Your task to perform on an android device: Clear all items from cart on ebay.com. Add bose soundlink mini to the cart on ebay.com Image 0: 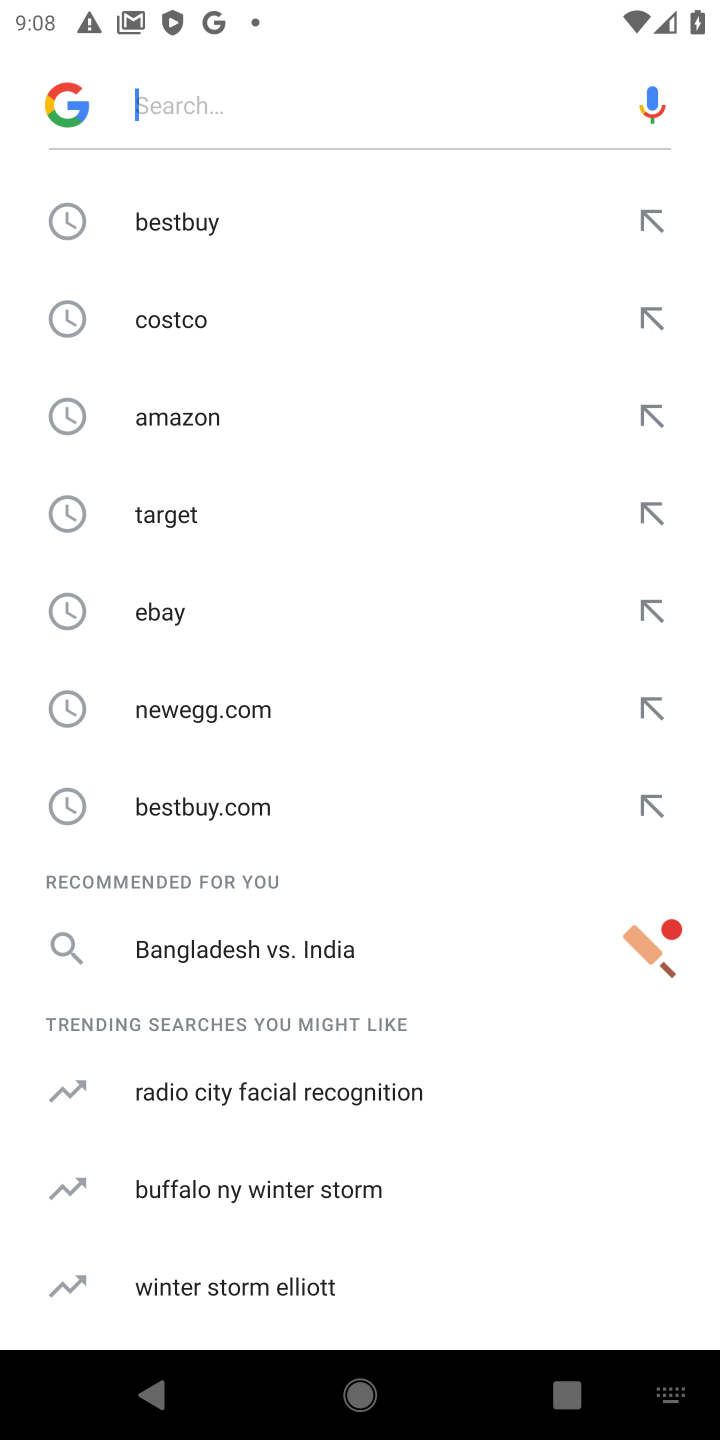
Step 0: click (180, 106)
Your task to perform on an android device: Clear all items from cart on ebay.com. Add bose soundlink mini to the cart on ebay.com Image 1: 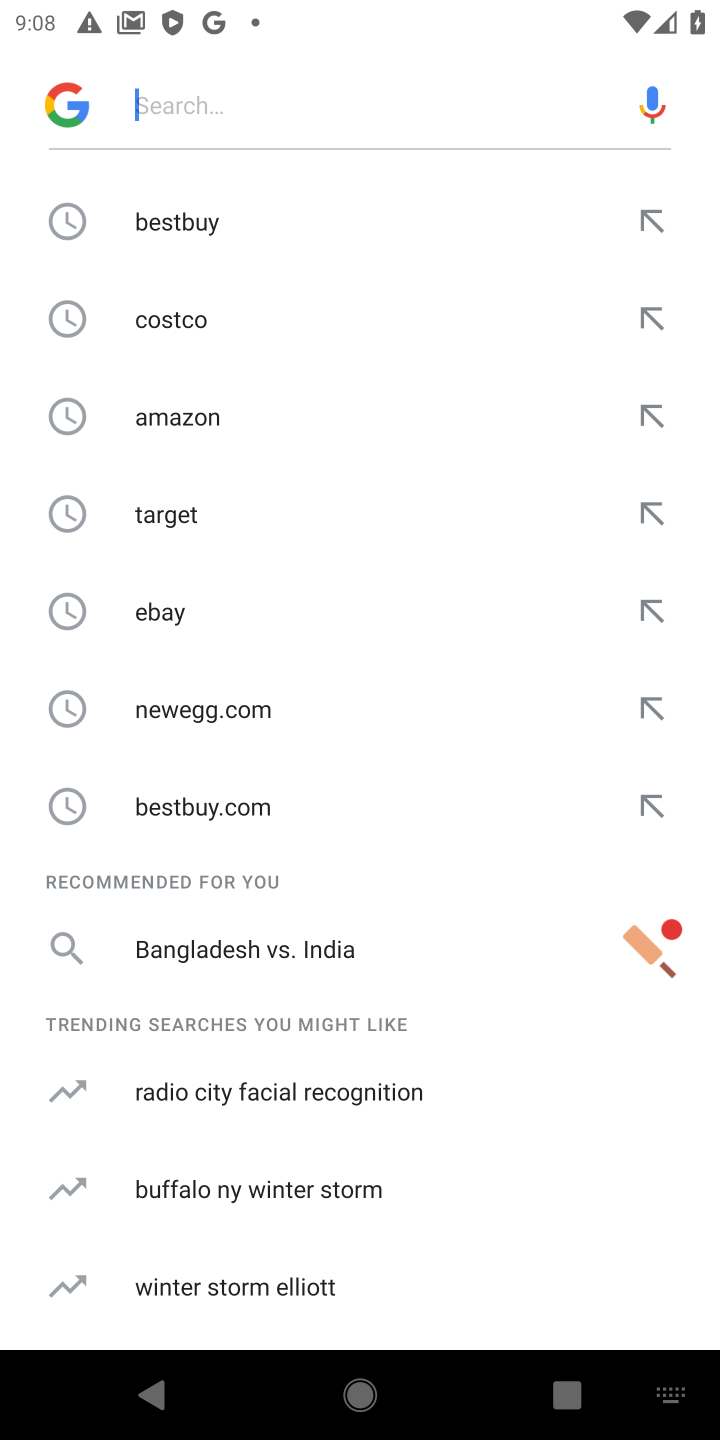
Step 1: type "ebay.com"
Your task to perform on an android device: Clear all items from cart on ebay.com. Add bose soundlink mini to the cart on ebay.com Image 2: 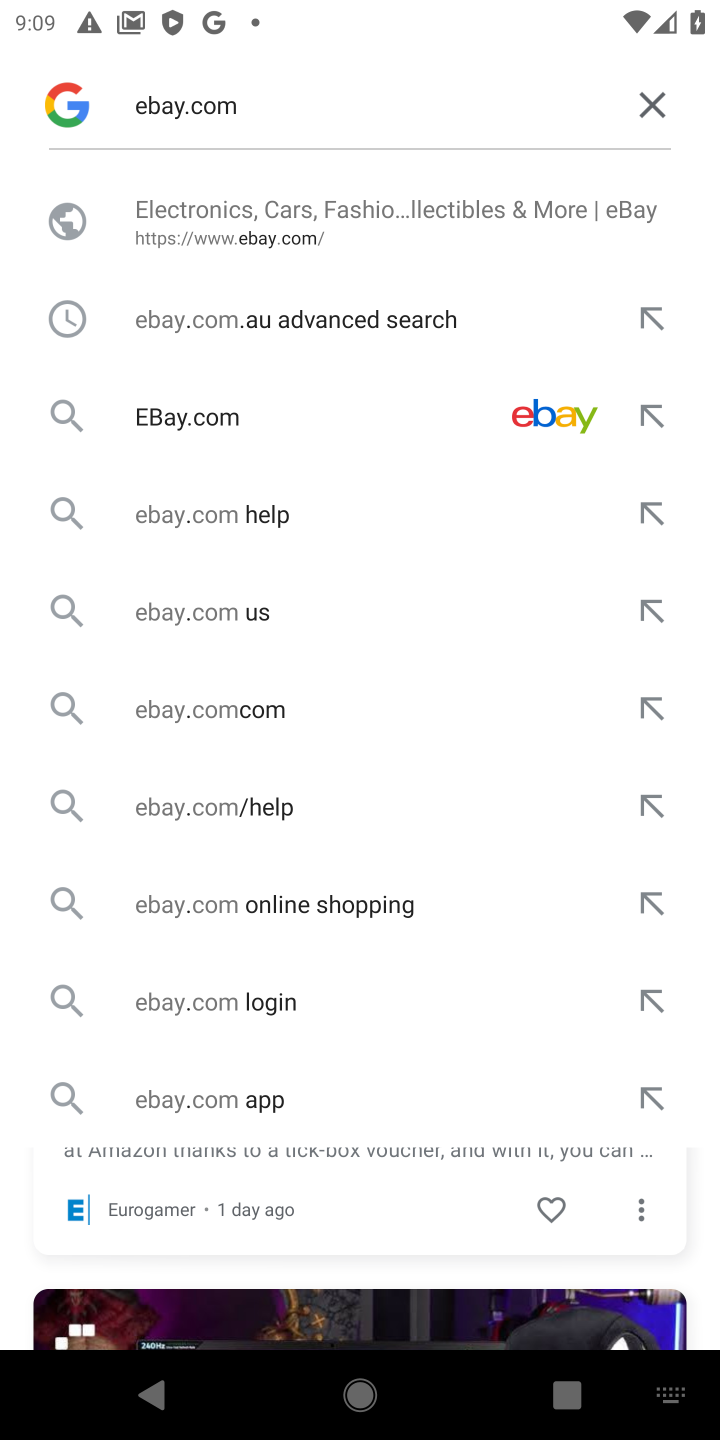
Step 2: click (220, 213)
Your task to perform on an android device: Clear all items from cart on ebay.com. Add bose soundlink mini to the cart on ebay.com Image 3: 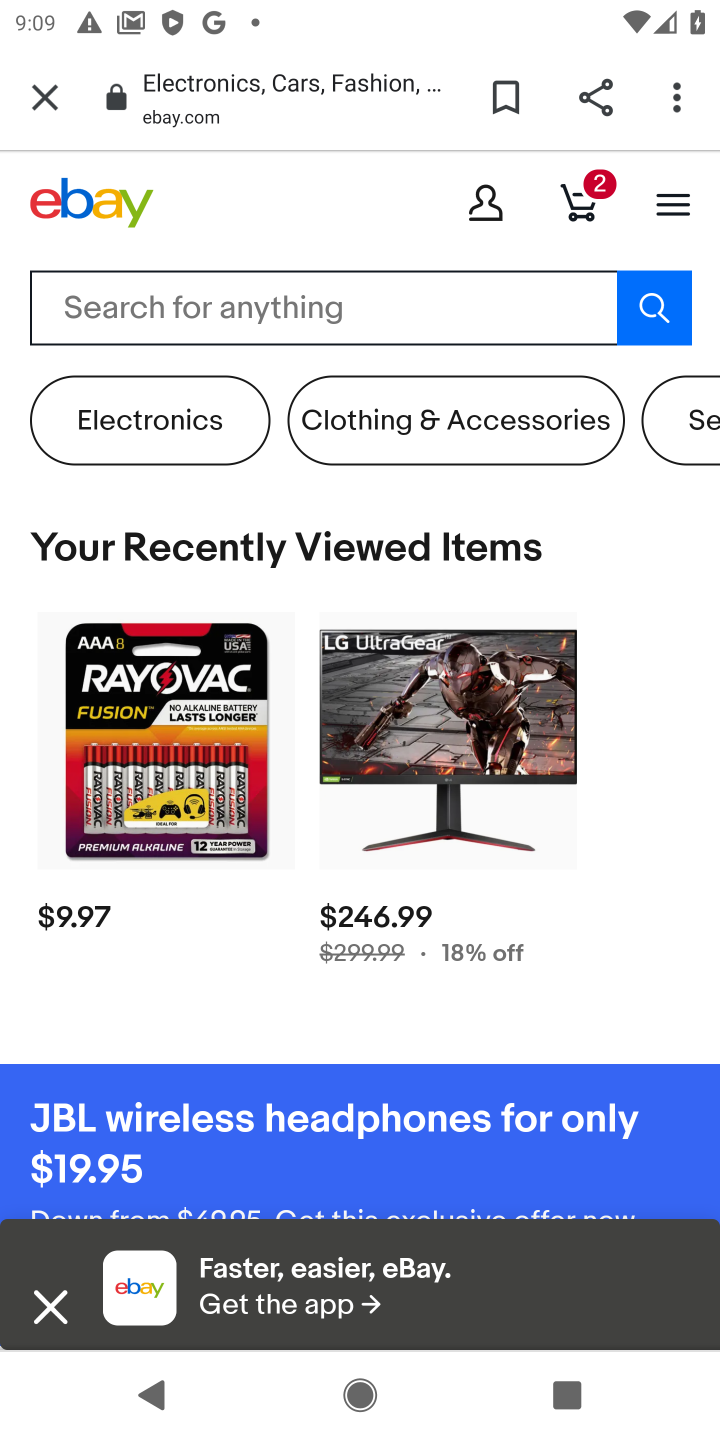
Step 3: click (580, 204)
Your task to perform on an android device: Clear all items from cart on ebay.com. Add bose soundlink mini to the cart on ebay.com Image 4: 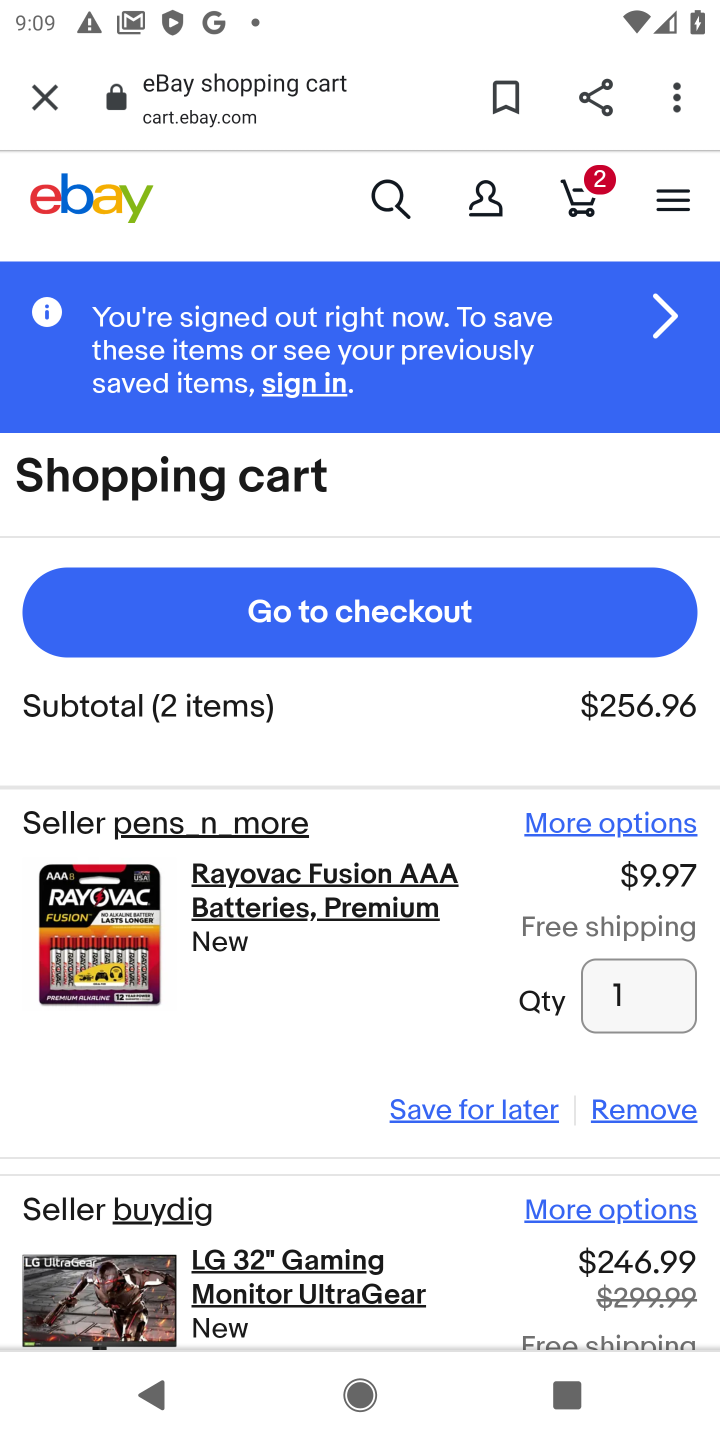
Step 4: click (634, 1109)
Your task to perform on an android device: Clear all items from cart on ebay.com. Add bose soundlink mini to the cart on ebay.com Image 5: 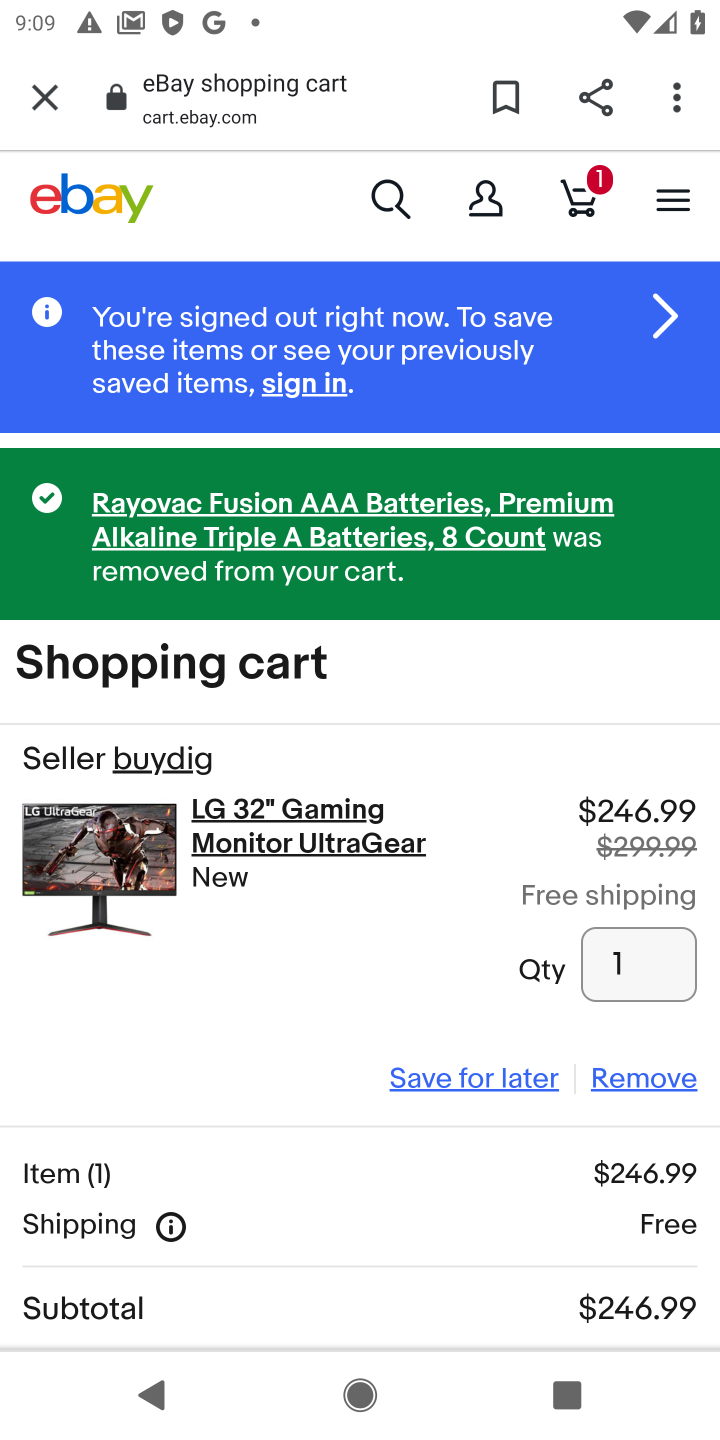
Step 5: click (645, 1078)
Your task to perform on an android device: Clear all items from cart on ebay.com. Add bose soundlink mini to the cart on ebay.com Image 6: 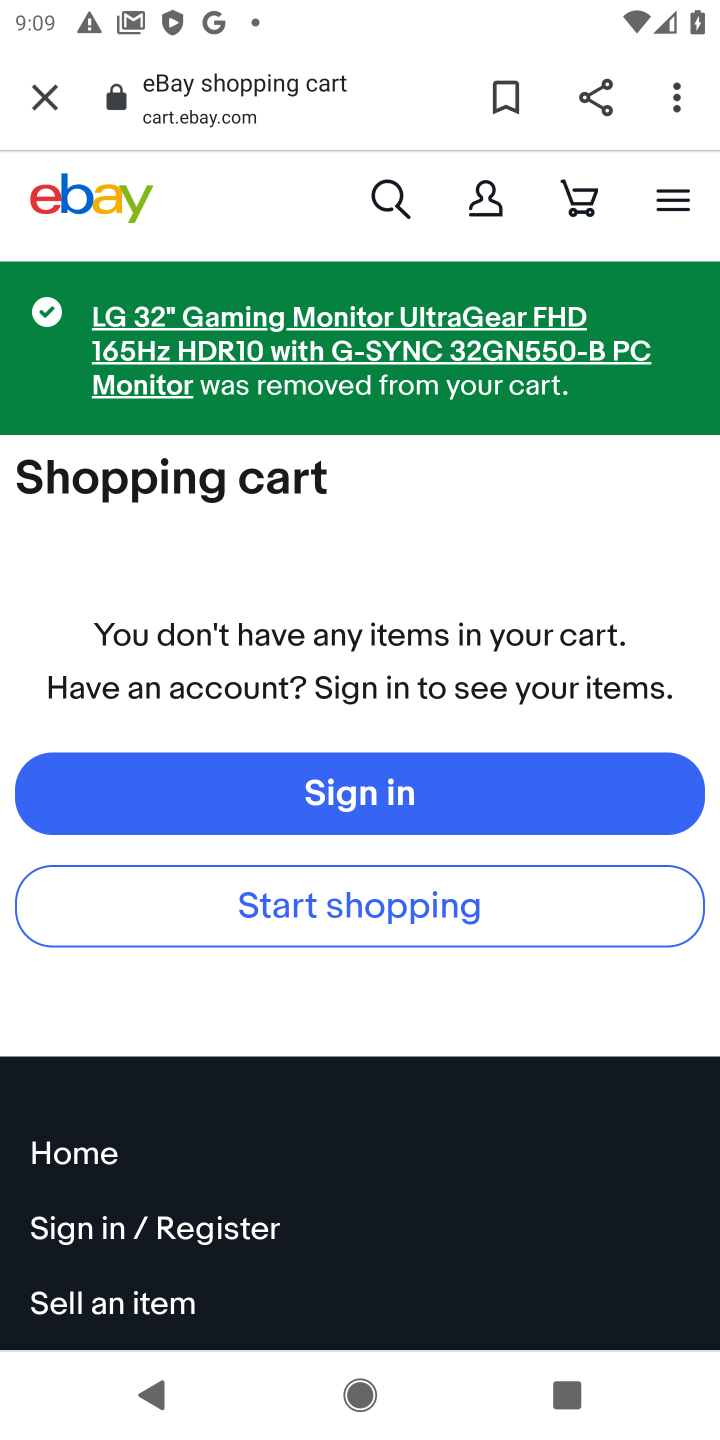
Step 6: click (383, 201)
Your task to perform on an android device: Clear all items from cart on ebay.com. Add bose soundlink mini to the cart on ebay.com Image 7: 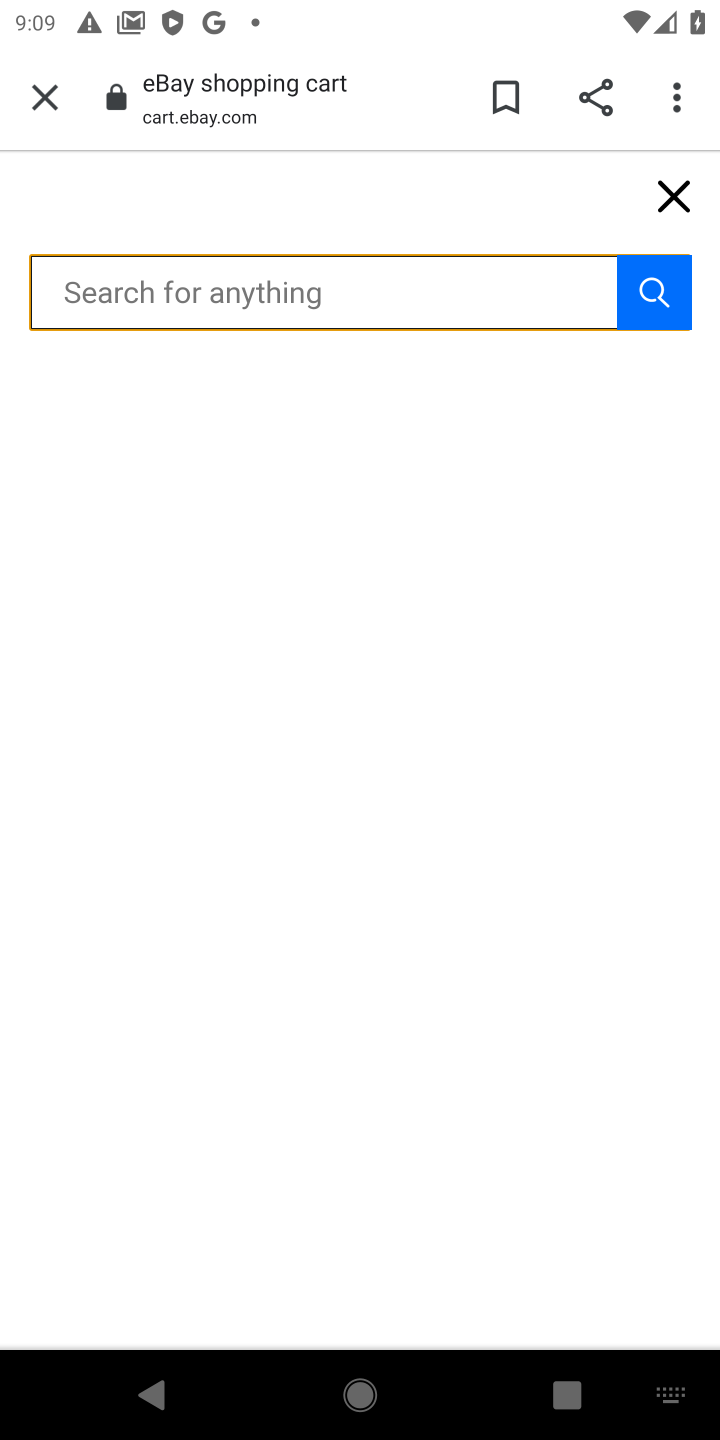
Step 7: type "bose soundlink mini "
Your task to perform on an android device: Clear all items from cart on ebay.com. Add bose soundlink mini to the cart on ebay.com Image 8: 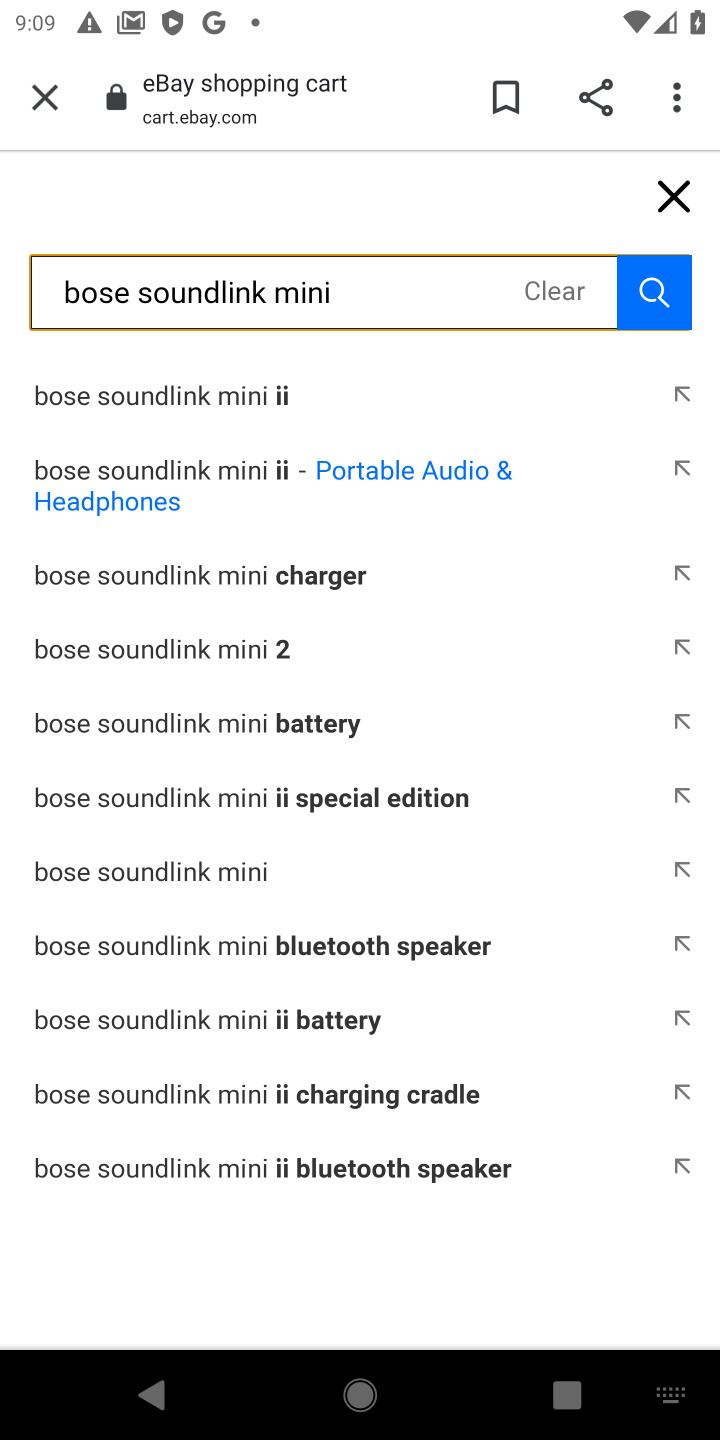
Step 8: click (146, 870)
Your task to perform on an android device: Clear all items from cart on ebay.com. Add bose soundlink mini to the cart on ebay.com Image 9: 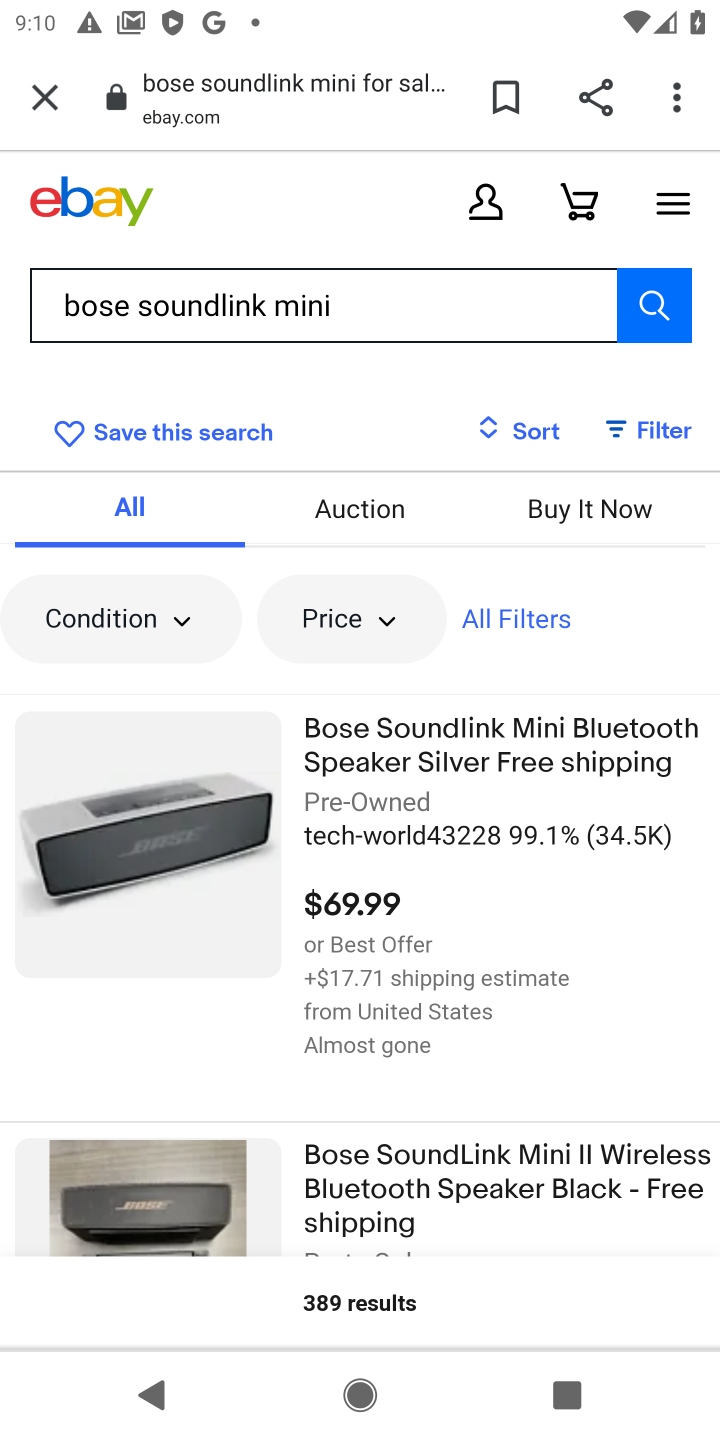
Step 9: click (404, 777)
Your task to perform on an android device: Clear all items from cart on ebay.com. Add bose soundlink mini to the cart on ebay.com Image 10: 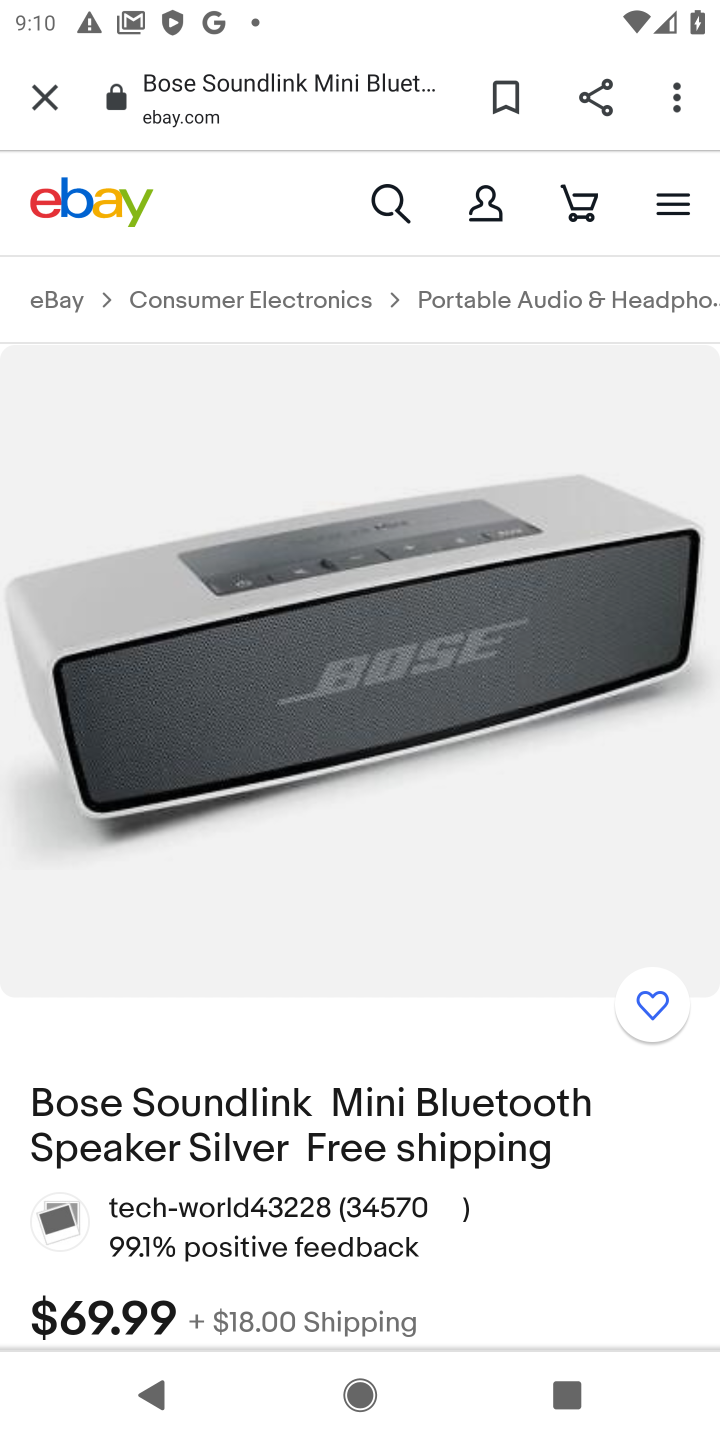
Step 10: drag from (380, 1074) to (410, 546)
Your task to perform on an android device: Clear all items from cart on ebay.com. Add bose soundlink mini to the cart on ebay.com Image 11: 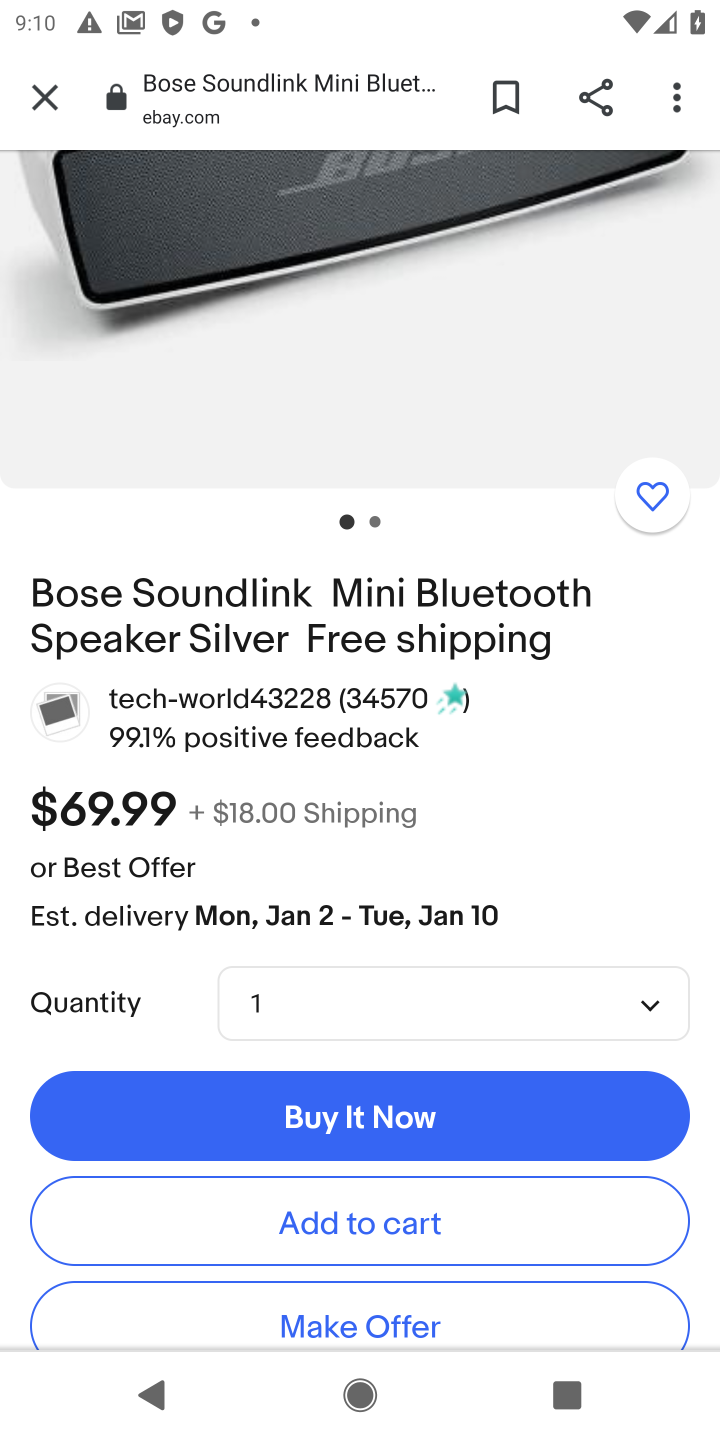
Step 11: click (324, 1218)
Your task to perform on an android device: Clear all items from cart on ebay.com. Add bose soundlink mini to the cart on ebay.com Image 12: 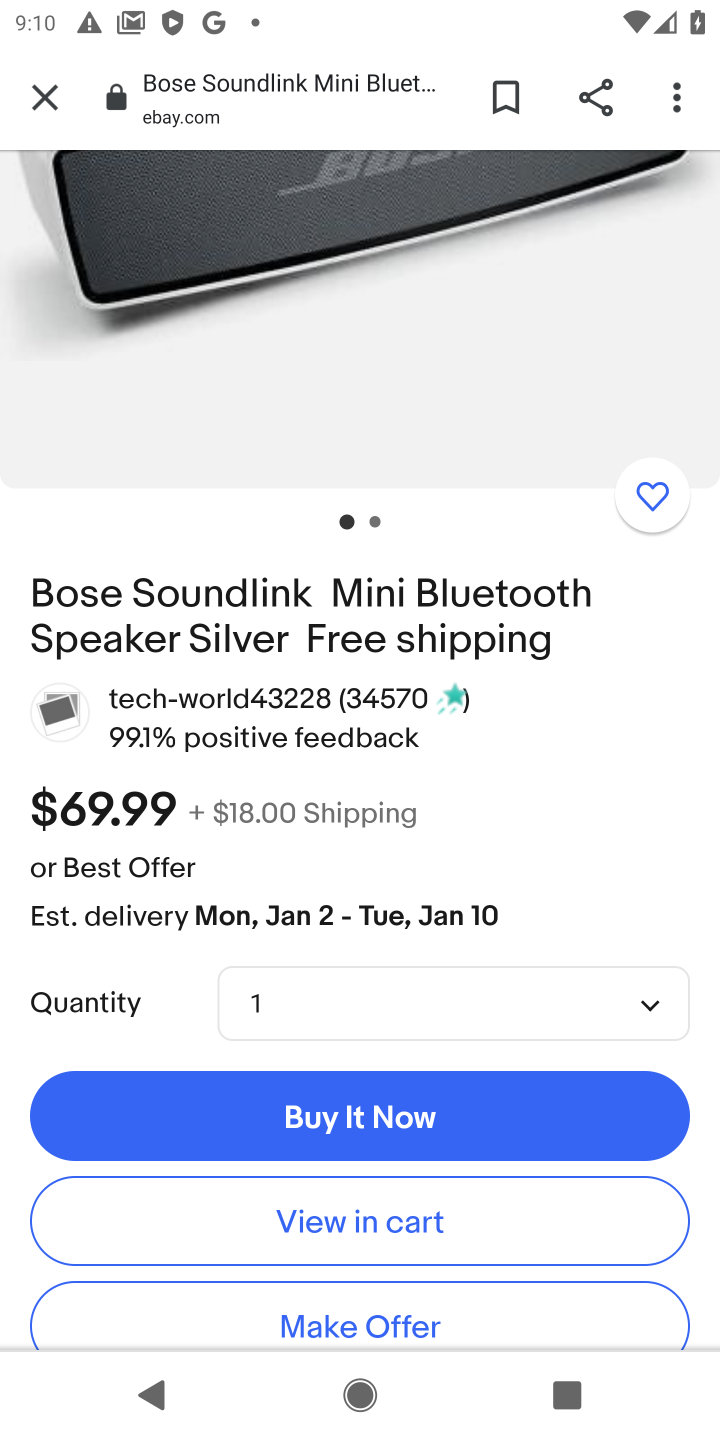
Step 12: task complete